Your task to perform on an android device: make emails show in primary in the gmail app Image 0: 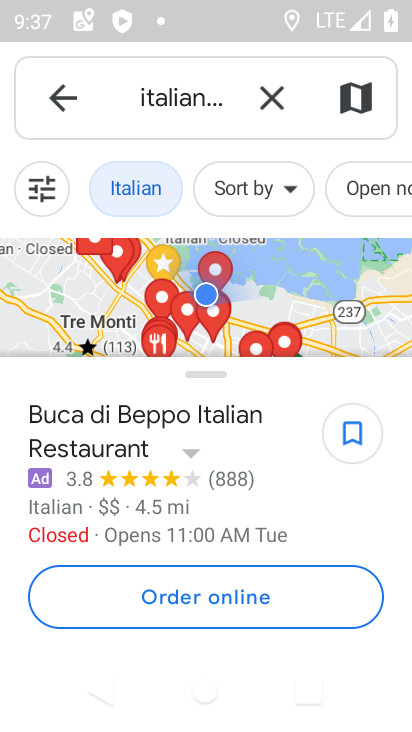
Step 0: press home button
Your task to perform on an android device: make emails show in primary in the gmail app Image 1: 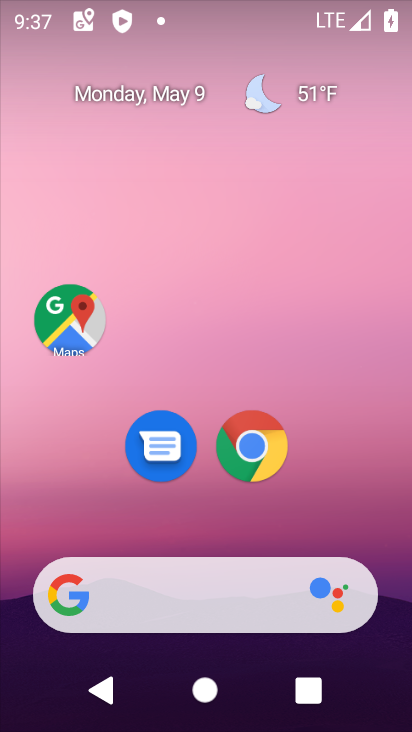
Step 1: drag from (320, 500) to (339, 94)
Your task to perform on an android device: make emails show in primary in the gmail app Image 2: 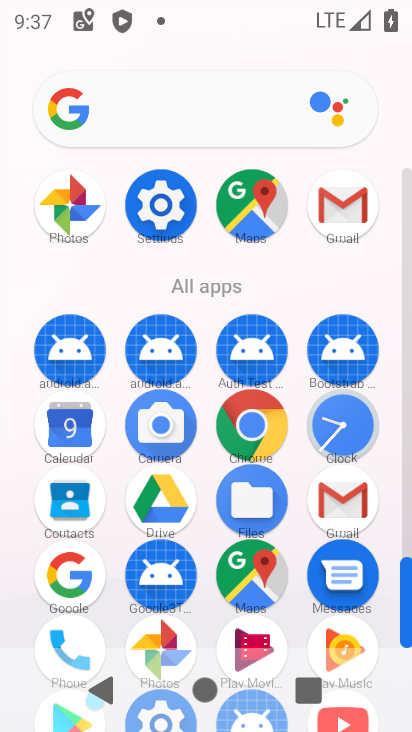
Step 2: click (335, 199)
Your task to perform on an android device: make emails show in primary in the gmail app Image 3: 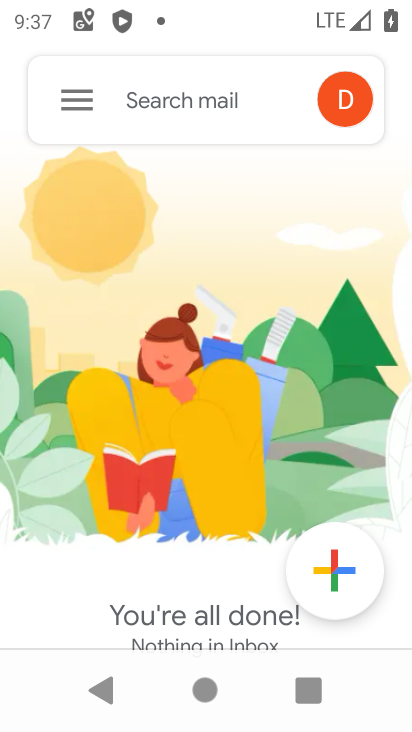
Step 3: click (72, 112)
Your task to perform on an android device: make emails show in primary in the gmail app Image 4: 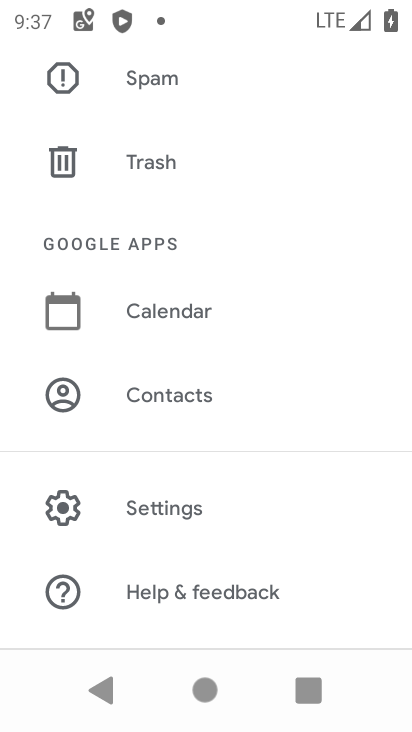
Step 4: click (172, 505)
Your task to perform on an android device: make emails show in primary in the gmail app Image 5: 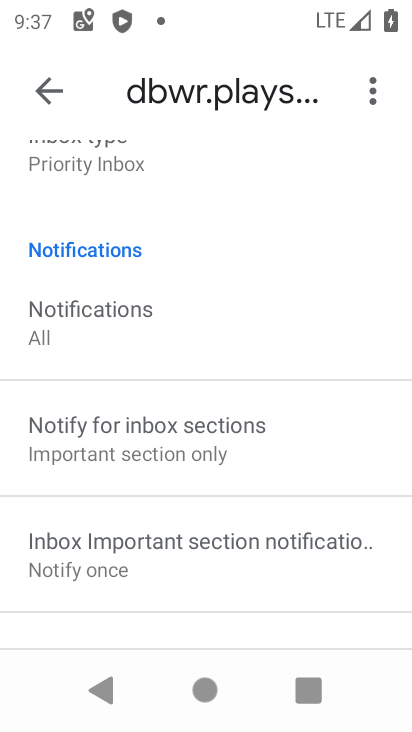
Step 5: click (129, 159)
Your task to perform on an android device: make emails show in primary in the gmail app Image 6: 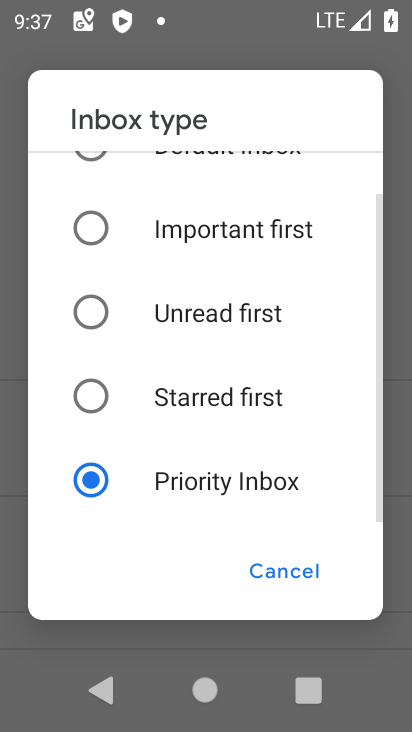
Step 6: click (94, 151)
Your task to perform on an android device: make emails show in primary in the gmail app Image 7: 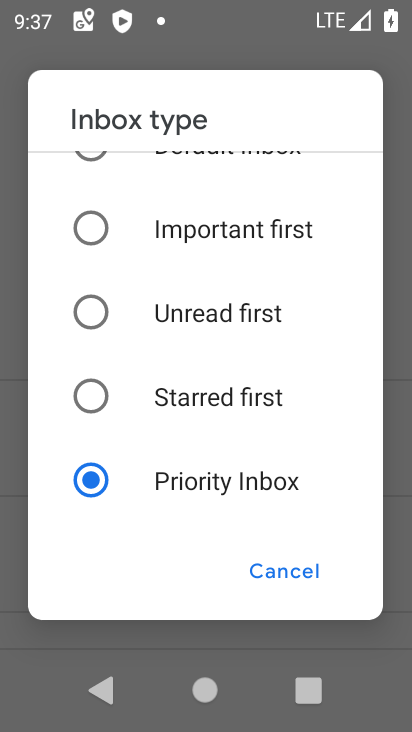
Step 7: drag from (130, 211) to (130, 458)
Your task to perform on an android device: make emails show in primary in the gmail app Image 8: 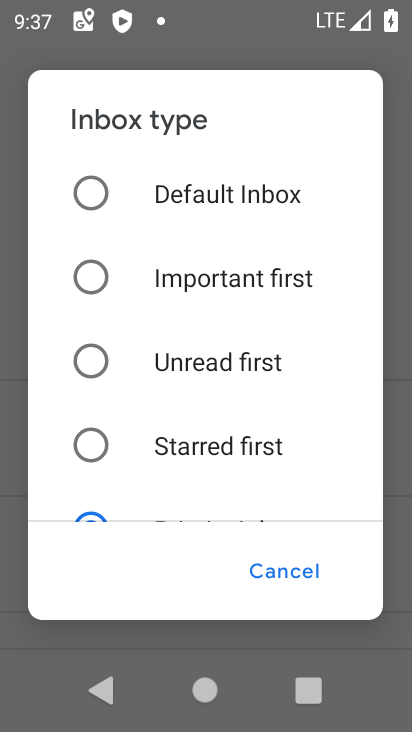
Step 8: click (83, 190)
Your task to perform on an android device: make emails show in primary in the gmail app Image 9: 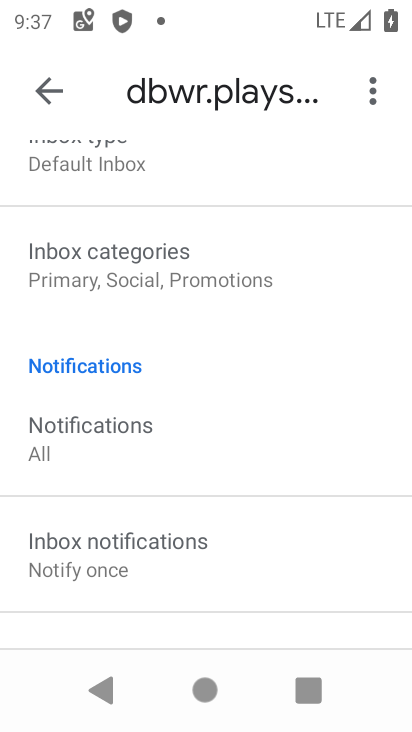
Step 9: click (139, 274)
Your task to perform on an android device: make emails show in primary in the gmail app Image 10: 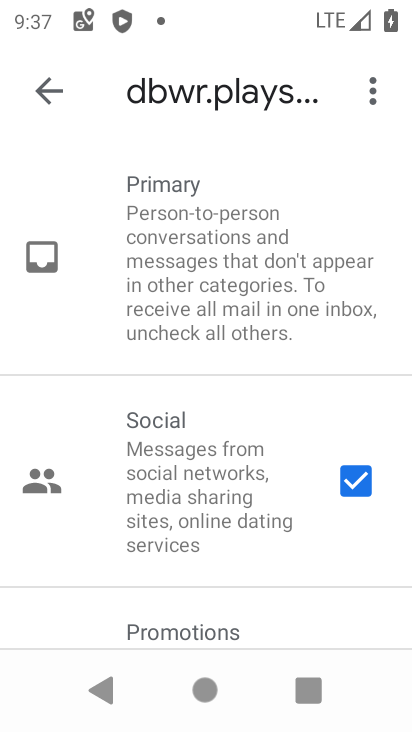
Step 10: click (354, 483)
Your task to perform on an android device: make emails show in primary in the gmail app Image 11: 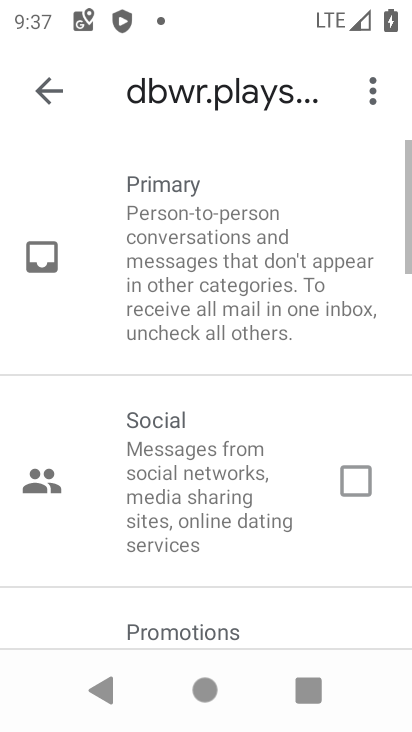
Step 11: drag from (273, 510) to (243, 214)
Your task to perform on an android device: make emails show in primary in the gmail app Image 12: 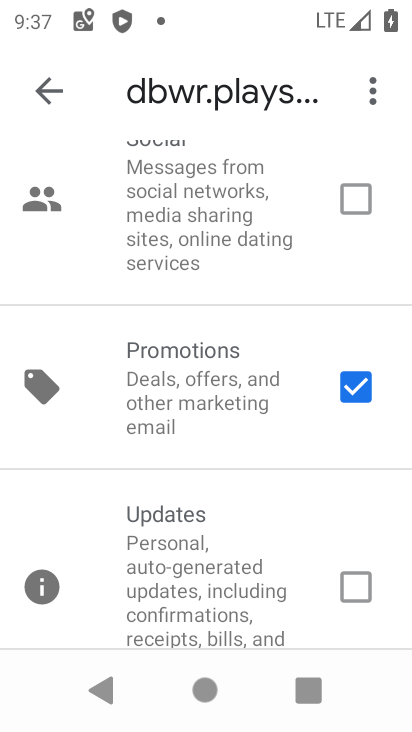
Step 12: click (355, 388)
Your task to perform on an android device: make emails show in primary in the gmail app Image 13: 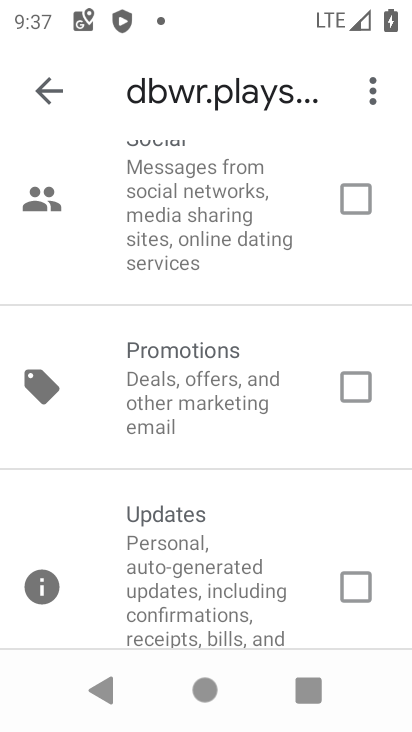
Step 13: task complete